Your task to perform on an android device: turn on bluetooth scan Image 0: 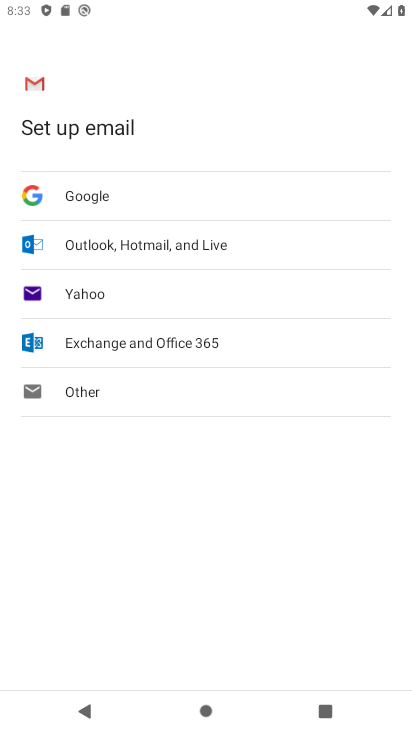
Step 0: press home button
Your task to perform on an android device: turn on bluetooth scan Image 1: 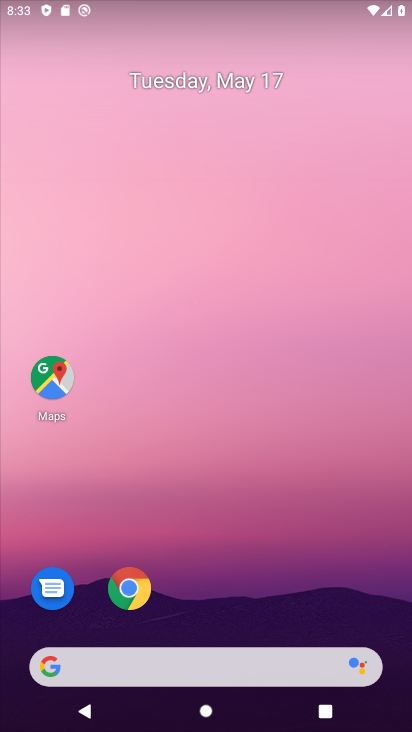
Step 1: drag from (229, 629) to (228, 191)
Your task to perform on an android device: turn on bluetooth scan Image 2: 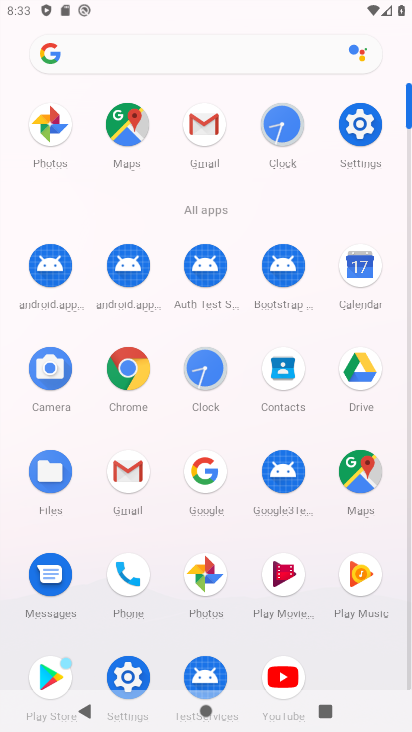
Step 2: click (358, 114)
Your task to perform on an android device: turn on bluetooth scan Image 3: 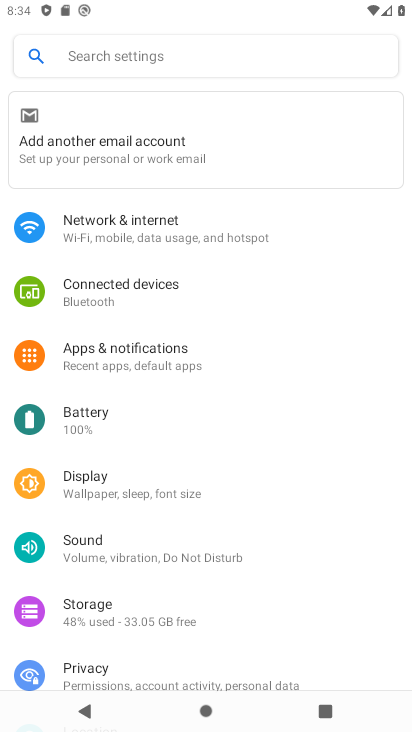
Step 3: drag from (234, 634) to (228, 257)
Your task to perform on an android device: turn on bluetooth scan Image 4: 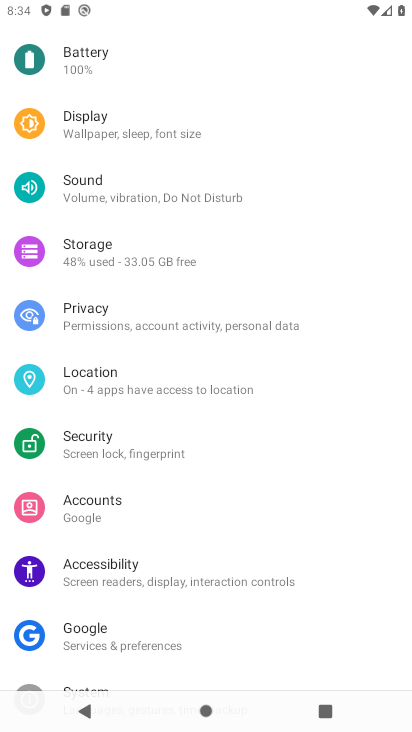
Step 4: click (161, 384)
Your task to perform on an android device: turn on bluetooth scan Image 5: 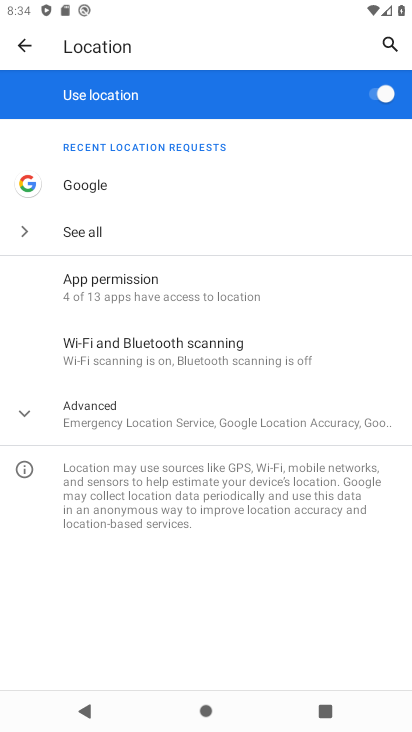
Step 5: click (153, 343)
Your task to perform on an android device: turn on bluetooth scan Image 6: 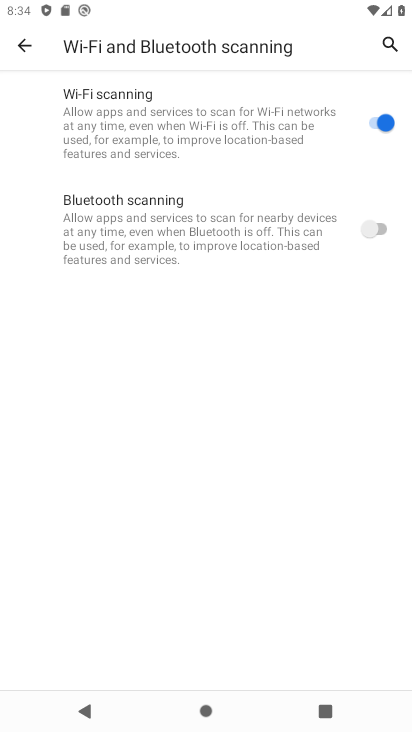
Step 6: click (385, 225)
Your task to perform on an android device: turn on bluetooth scan Image 7: 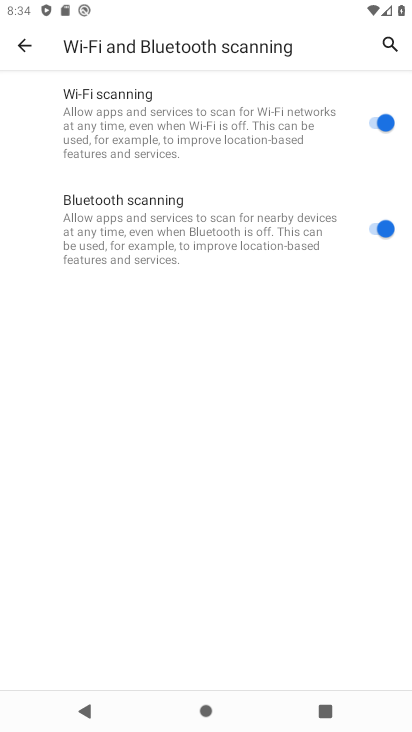
Step 7: task complete